Your task to perform on an android device: Go to Maps Image 0: 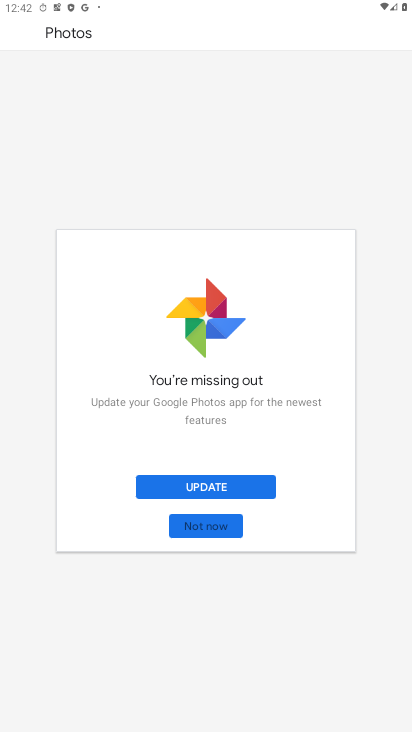
Step 0: press home button
Your task to perform on an android device: Go to Maps Image 1: 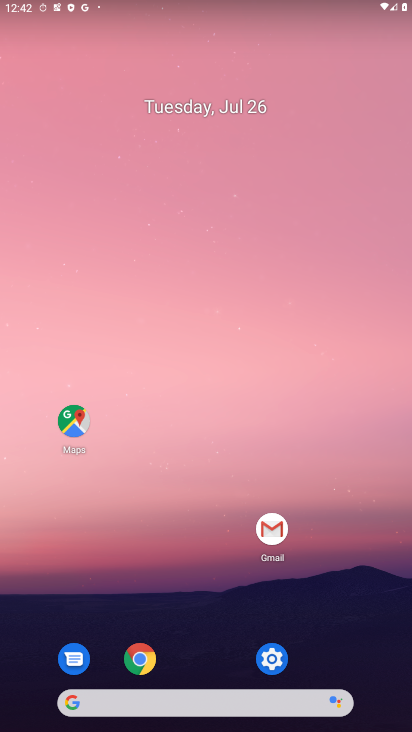
Step 1: click (60, 425)
Your task to perform on an android device: Go to Maps Image 2: 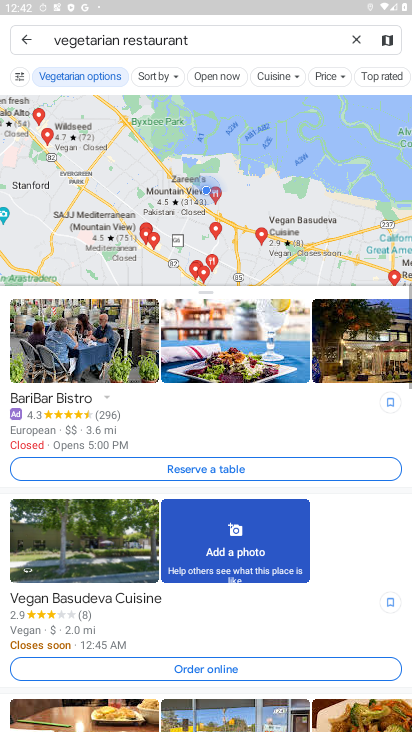
Step 2: click (33, 36)
Your task to perform on an android device: Go to Maps Image 3: 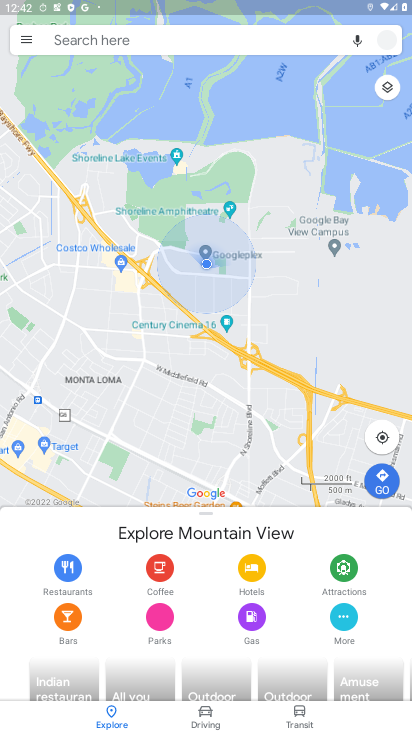
Step 3: click (383, 433)
Your task to perform on an android device: Go to Maps Image 4: 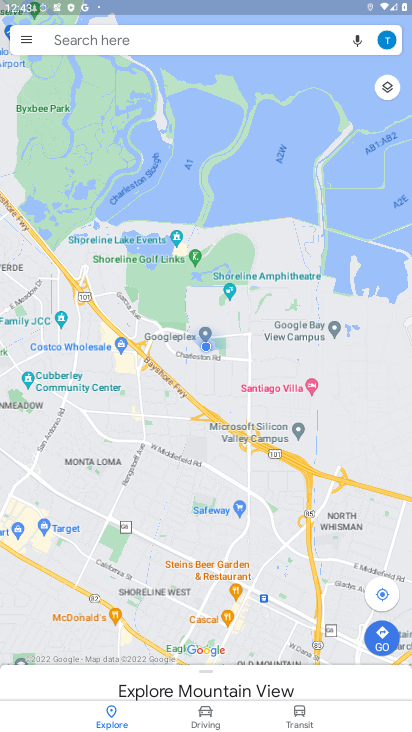
Step 4: task complete